Your task to perform on an android device: turn off priority inbox in the gmail app Image 0: 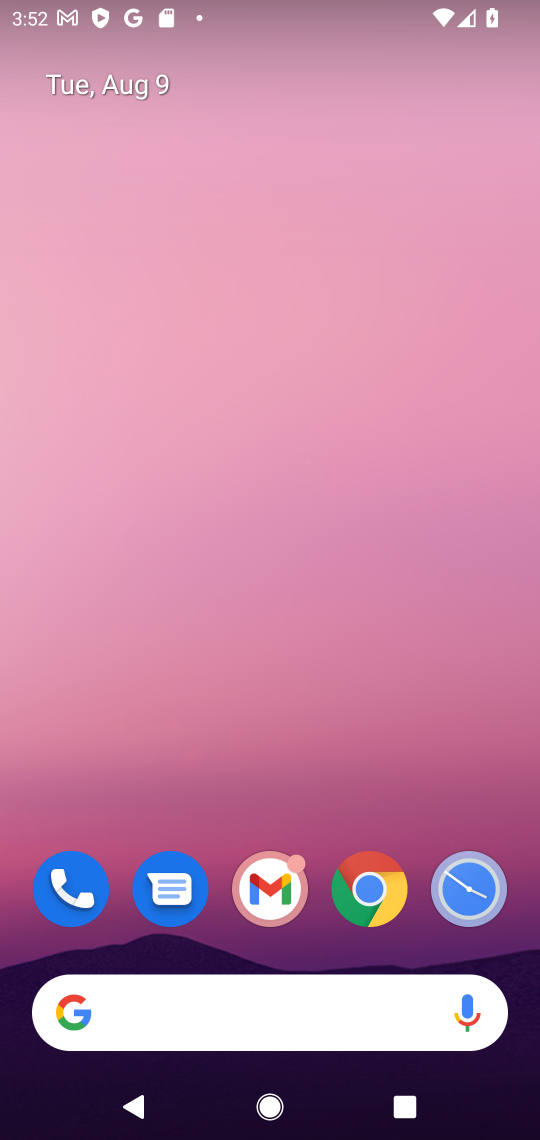
Step 0: click (276, 880)
Your task to perform on an android device: turn off priority inbox in the gmail app Image 1: 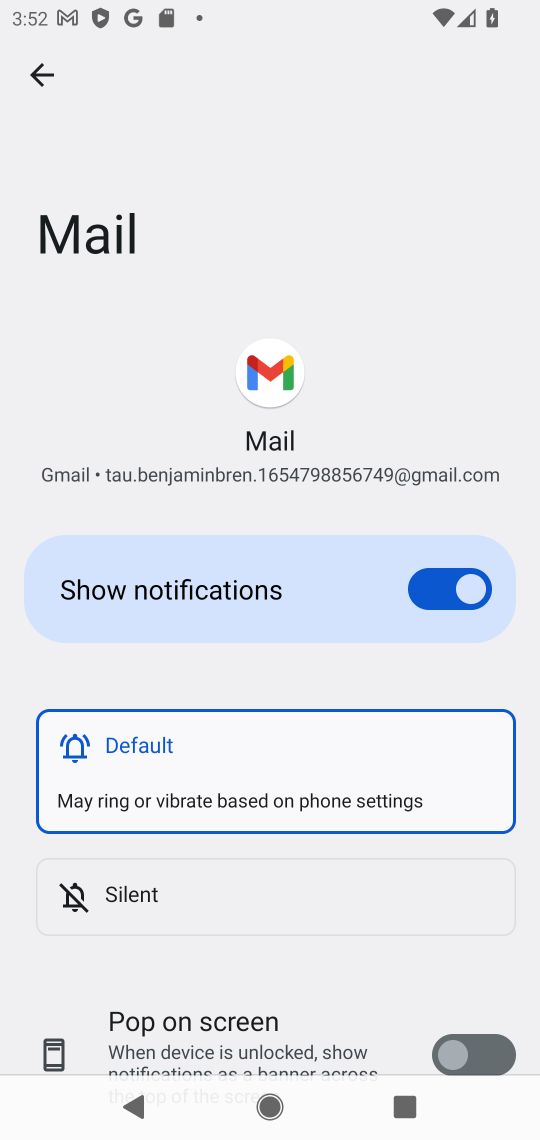
Step 1: click (48, 70)
Your task to perform on an android device: turn off priority inbox in the gmail app Image 2: 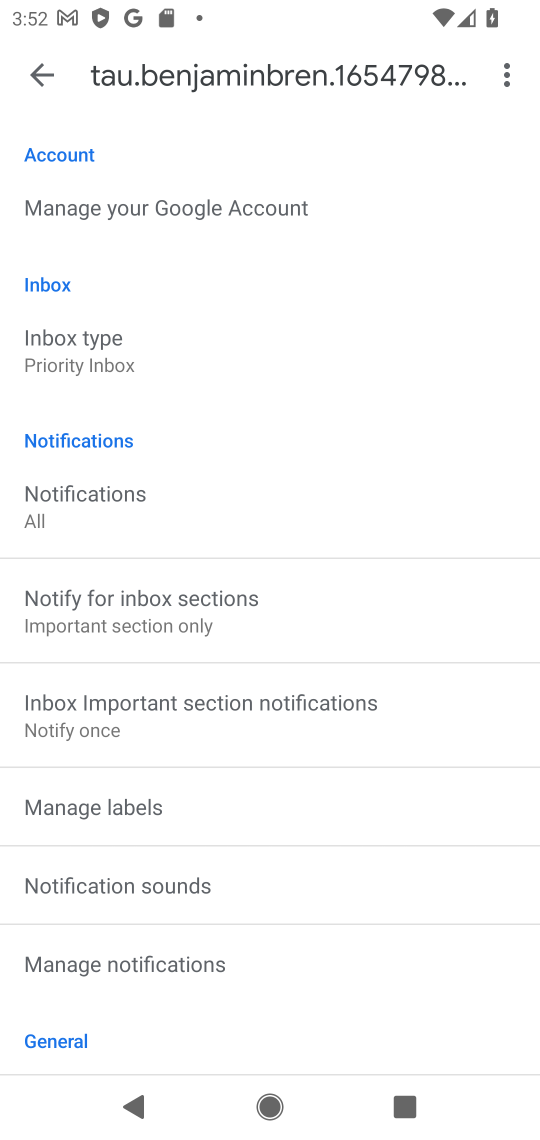
Step 2: click (92, 334)
Your task to perform on an android device: turn off priority inbox in the gmail app Image 3: 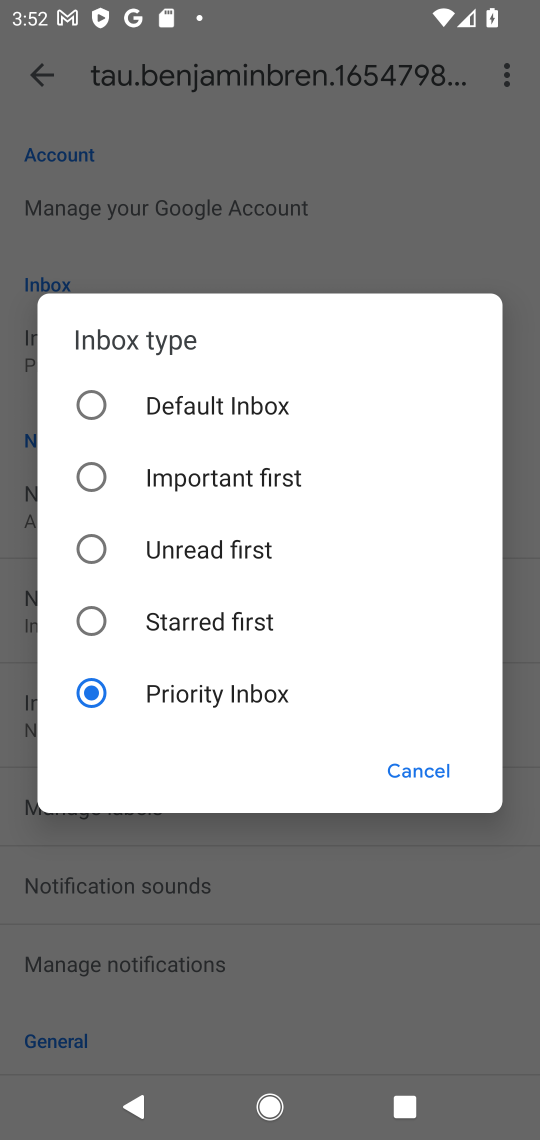
Step 3: click (94, 396)
Your task to perform on an android device: turn off priority inbox in the gmail app Image 4: 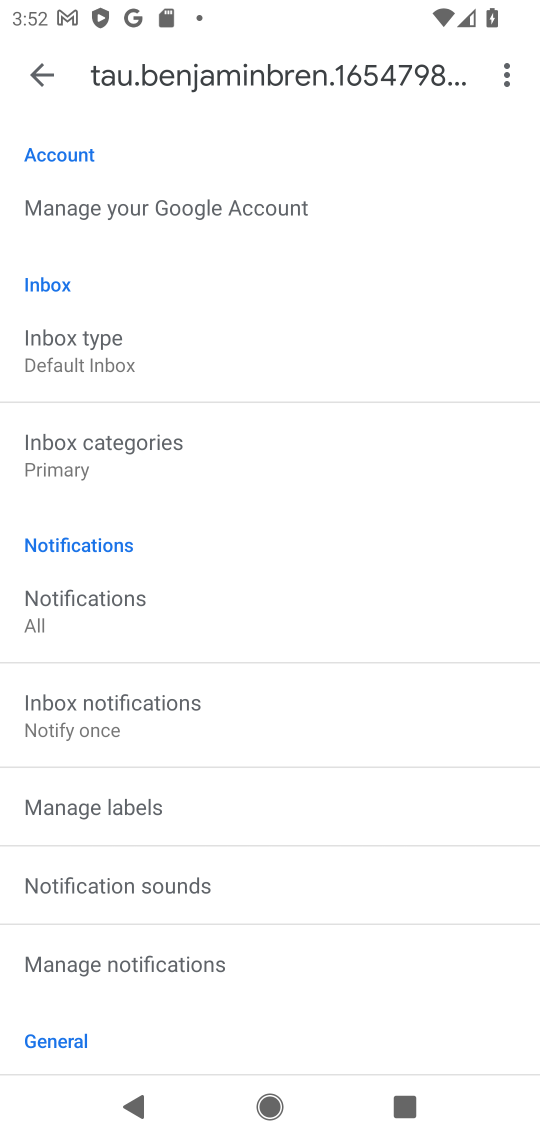
Step 4: task complete